Your task to perform on an android device: manage bookmarks in the chrome app Image 0: 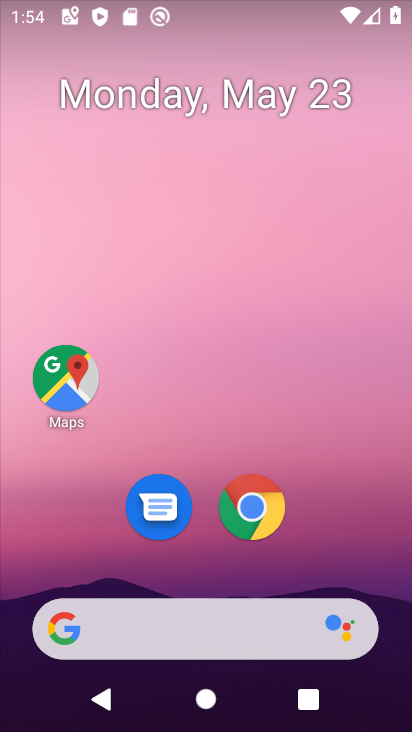
Step 0: click (248, 494)
Your task to perform on an android device: manage bookmarks in the chrome app Image 1: 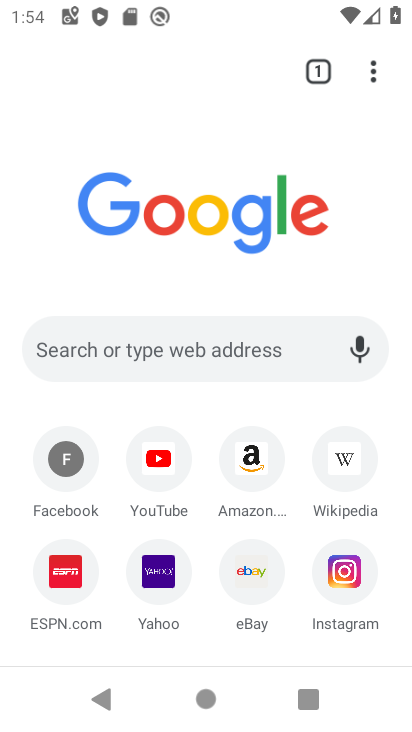
Step 1: click (372, 80)
Your task to perform on an android device: manage bookmarks in the chrome app Image 2: 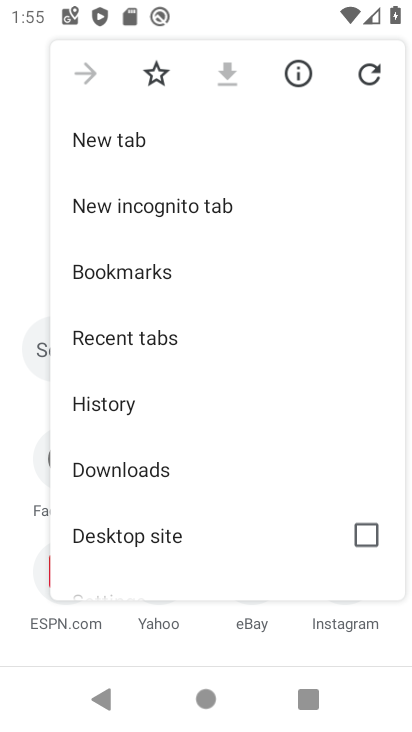
Step 2: click (151, 270)
Your task to perform on an android device: manage bookmarks in the chrome app Image 3: 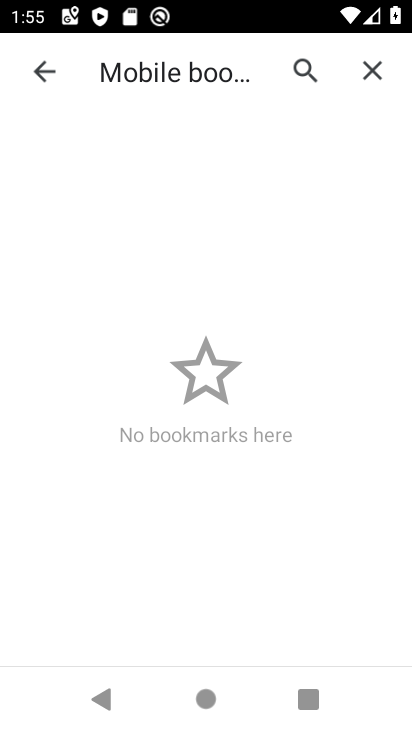
Step 3: task complete